Your task to perform on an android device: open app "Booking.com: Hotels and more" (install if not already installed) and enter user name: "misting@outlook.com" and password: "blandly" Image 0: 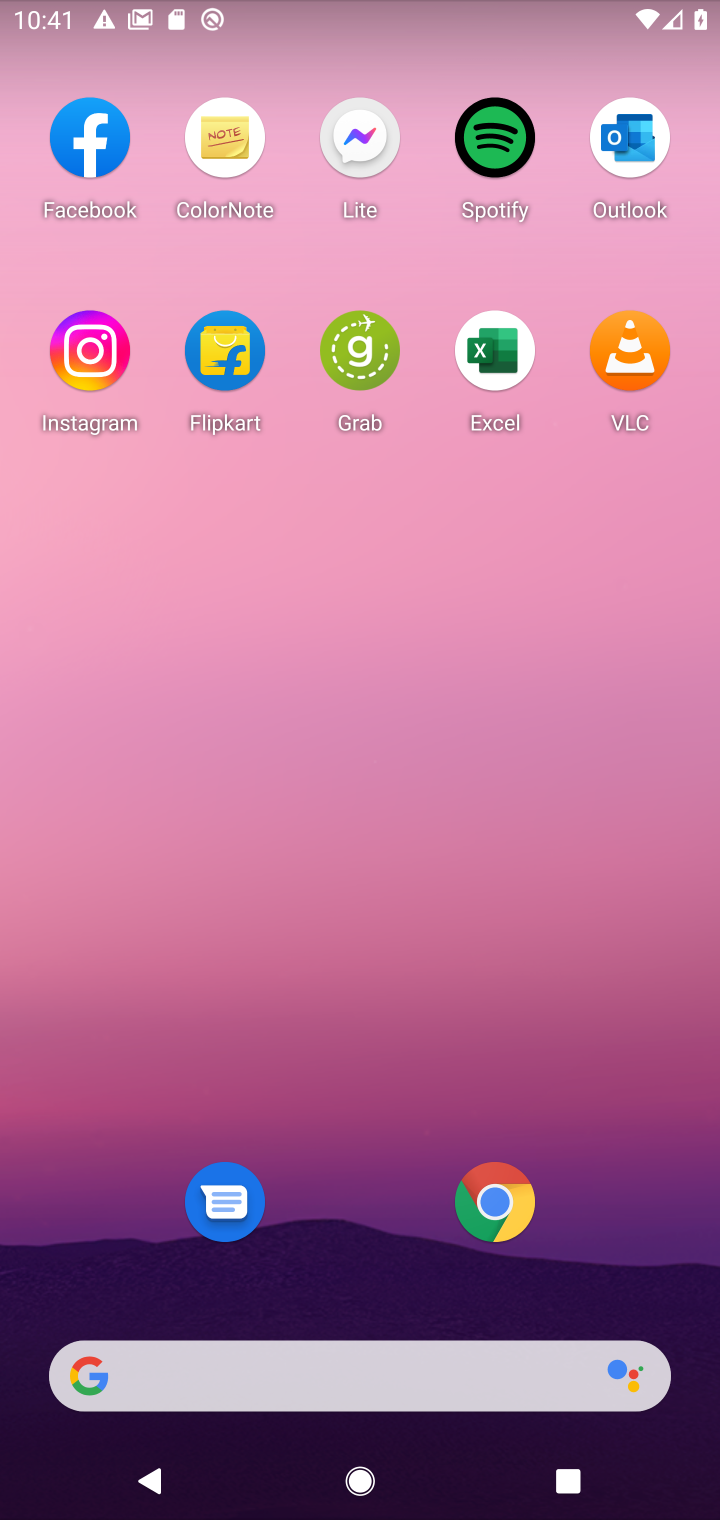
Step 0: drag from (382, 1380) to (312, 188)
Your task to perform on an android device: open app "Booking.com: Hotels and more" (install if not already installed) and enter user name: "misting@outlook.com" and password: "blandly" Image 1: 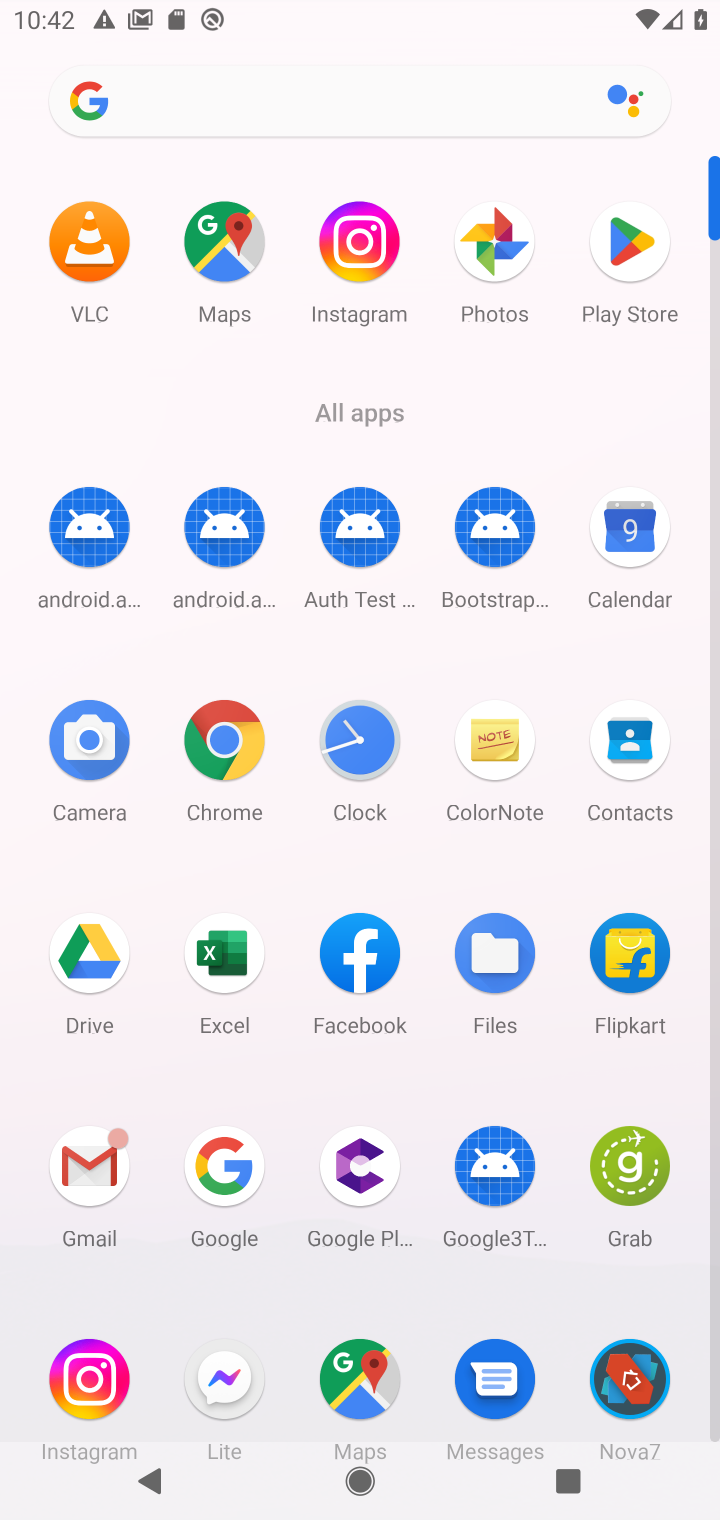
Step 1: click (621, 260)
Your task to perform on an android device: open app "Booking.com: Hotels and more" (install if not already installed) and enter user name: "misting@outlook.com" and password: "blandly" Image 2: 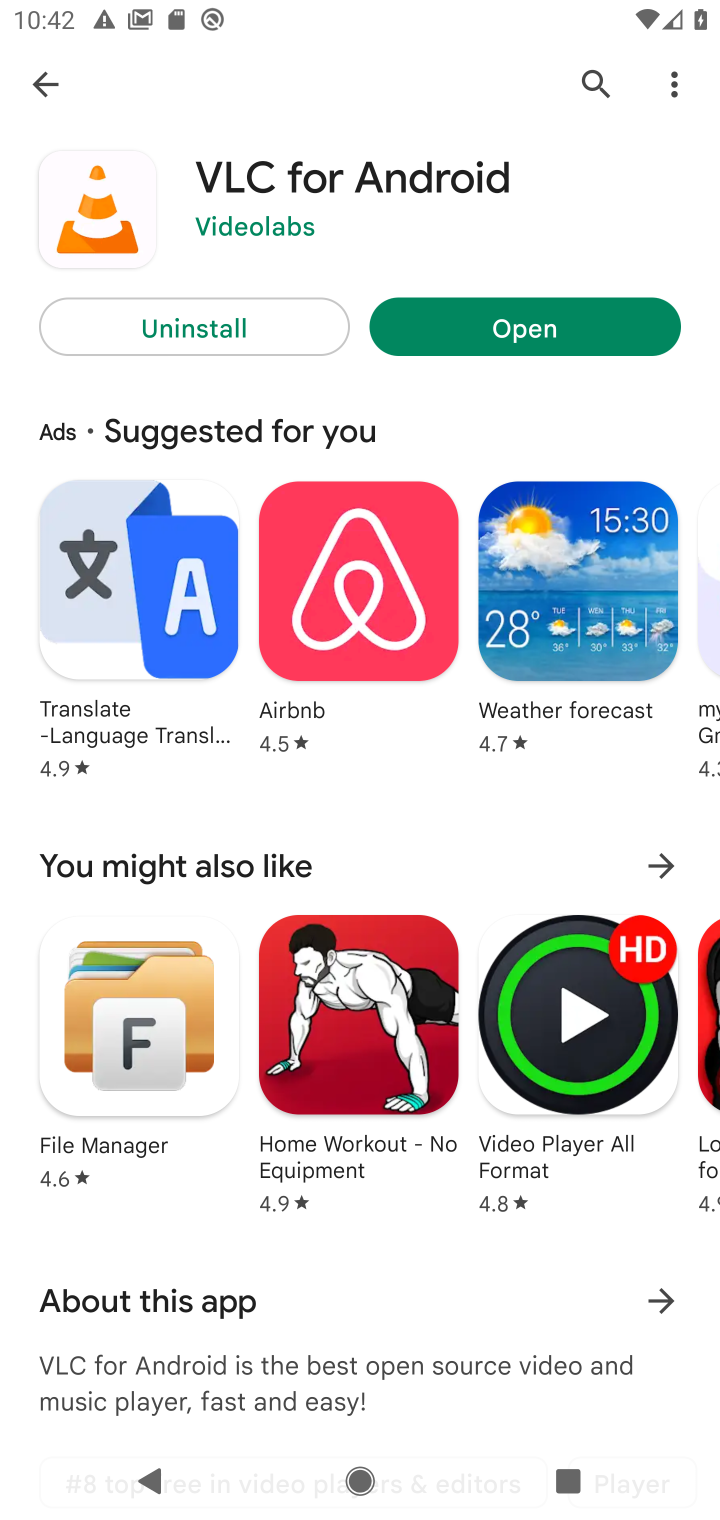
Step 2: click (598, 92)
Your task to perform on an android device: open app "Booking.com: Hotels and more" (install if not already installed) and enter user name: "misting@outlook.com" and password: "blandly" Image 3: 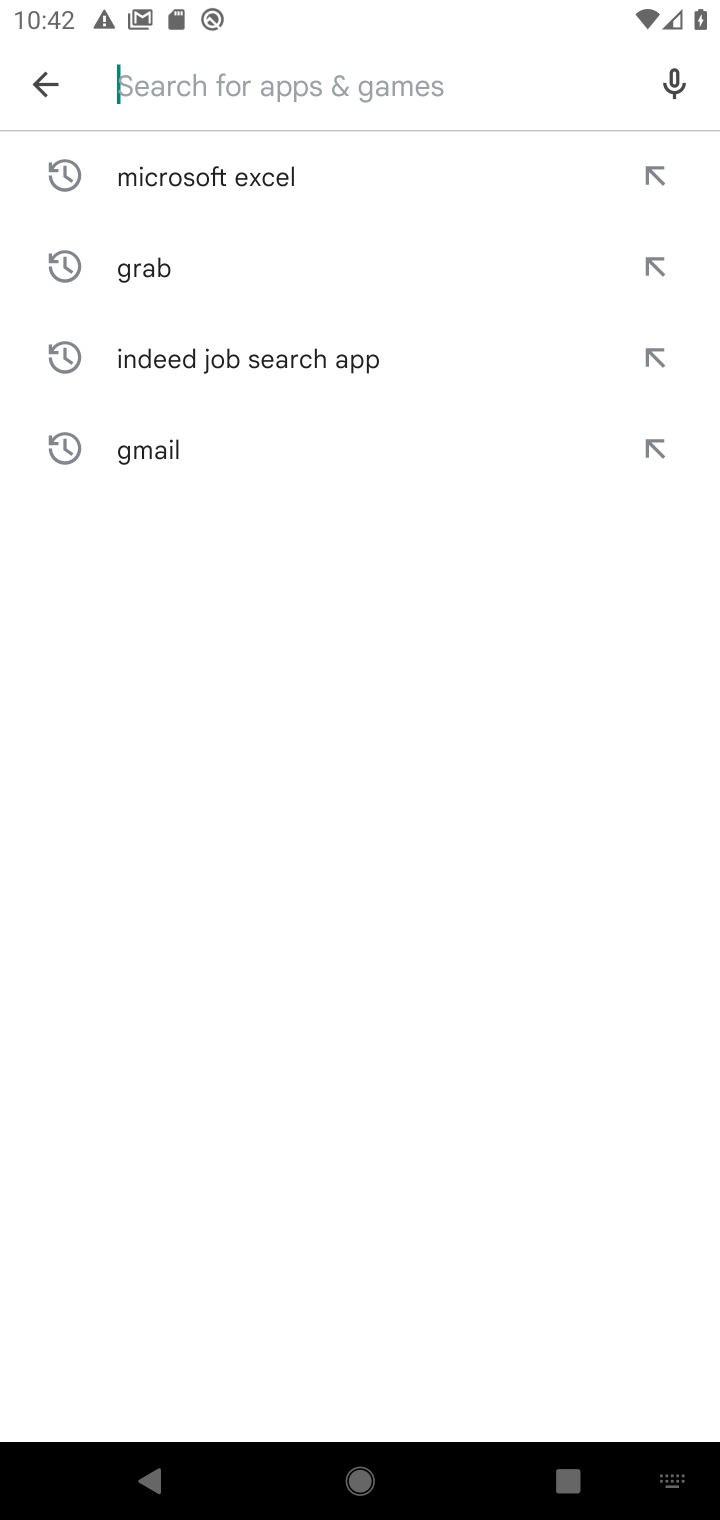
Step 3: type "booking.com"
Your task to perform on an android device: open app "Booking.com: Hotels and more" (install if not already installed) and enter user name: "misting@outlook.com" and password: "blandly" Image 4: 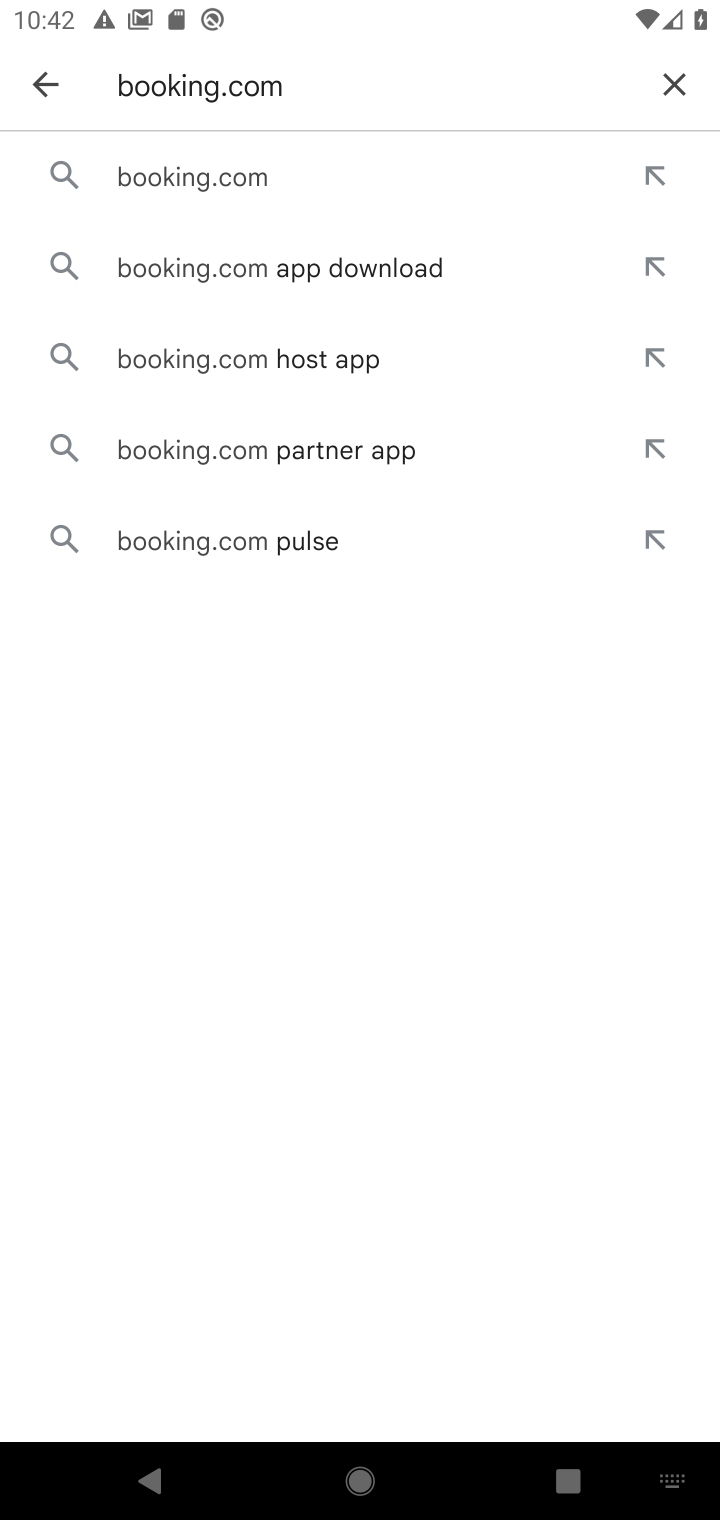
Step 4: click (230, 187)
Your task to perform on an android device: open app "Booking.com: Hotels and more" (install if not already installed) and enter user name: "misting@outlook.com" and password: "blandly" Image 5: 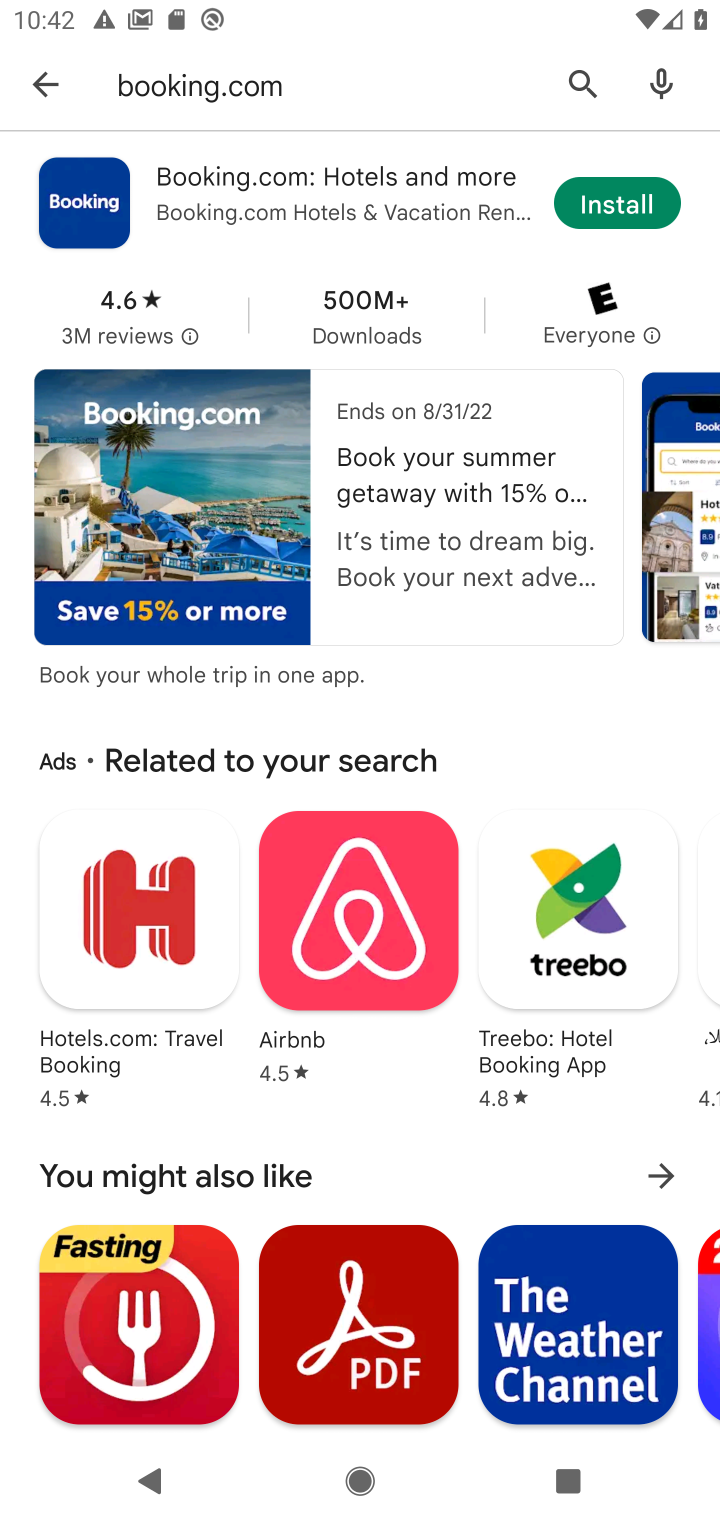
Step 5: click (633, 202)
Your task to perform on an android device: open app "Booking.com: Hotels and more" (install if not already installed) and enter user name: "misting@outlook.com" and password: "blandly" Image 6: 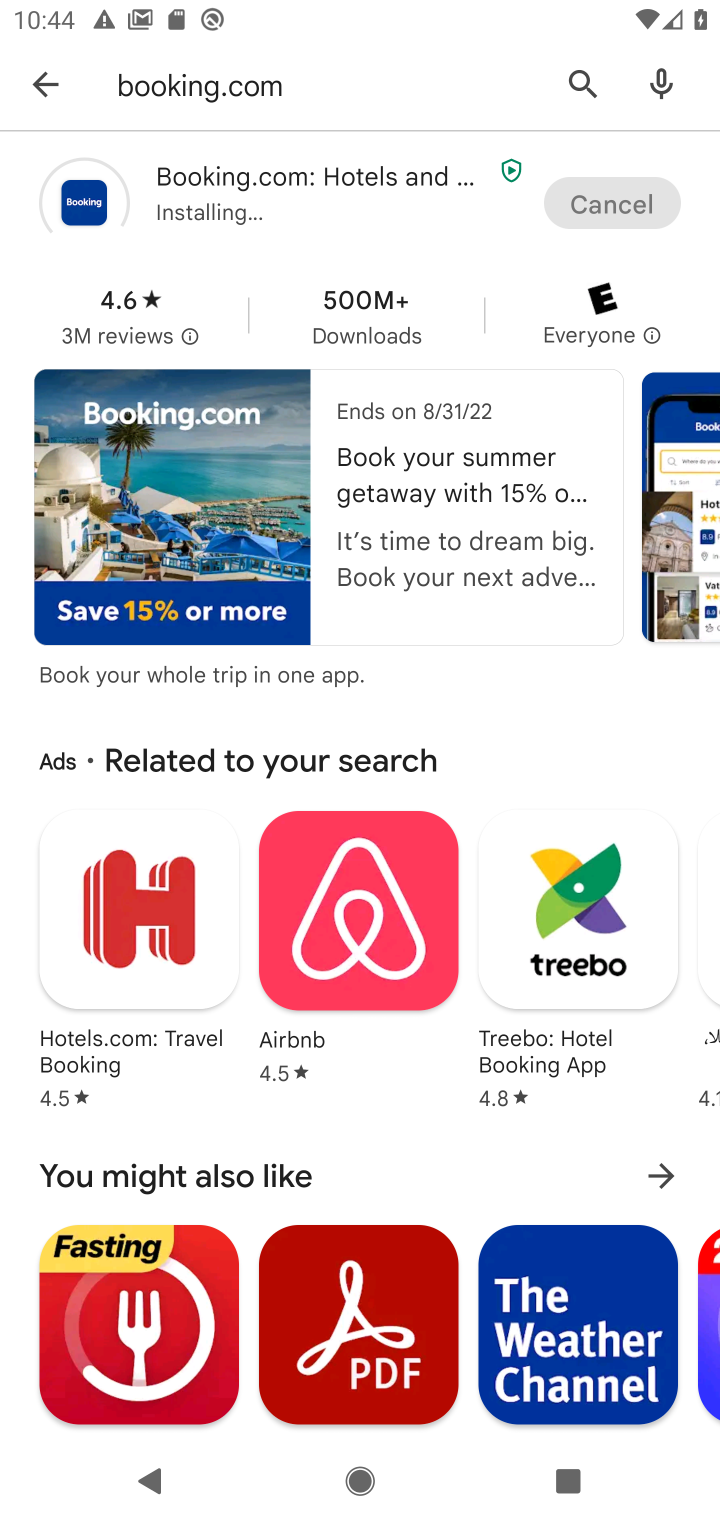
Step 6: drag from (362, 1080) to (359, 1311)
Your task to perform on an android device: open app "Booking.com: Hotels and more" (install if not already installed) and enter user name: "misting@outlook.com" and password: "blandly" Image 7: 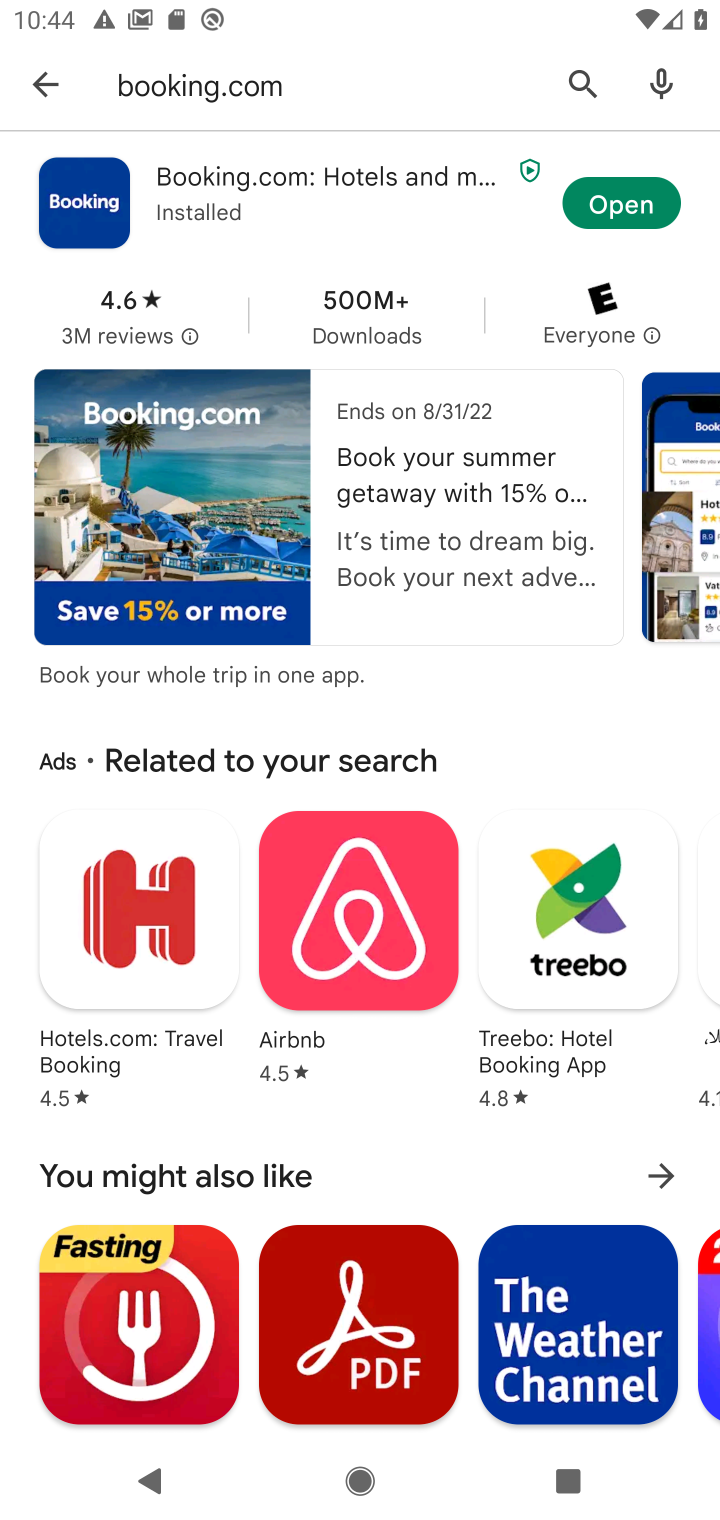
Step 7: click (608, 211)
Your task to perform on an android device: open app "Booking.com: Hotels and more" (install if not already installed) and enter user name: "misting@outlook.com" and password: "blandly" Image 8: 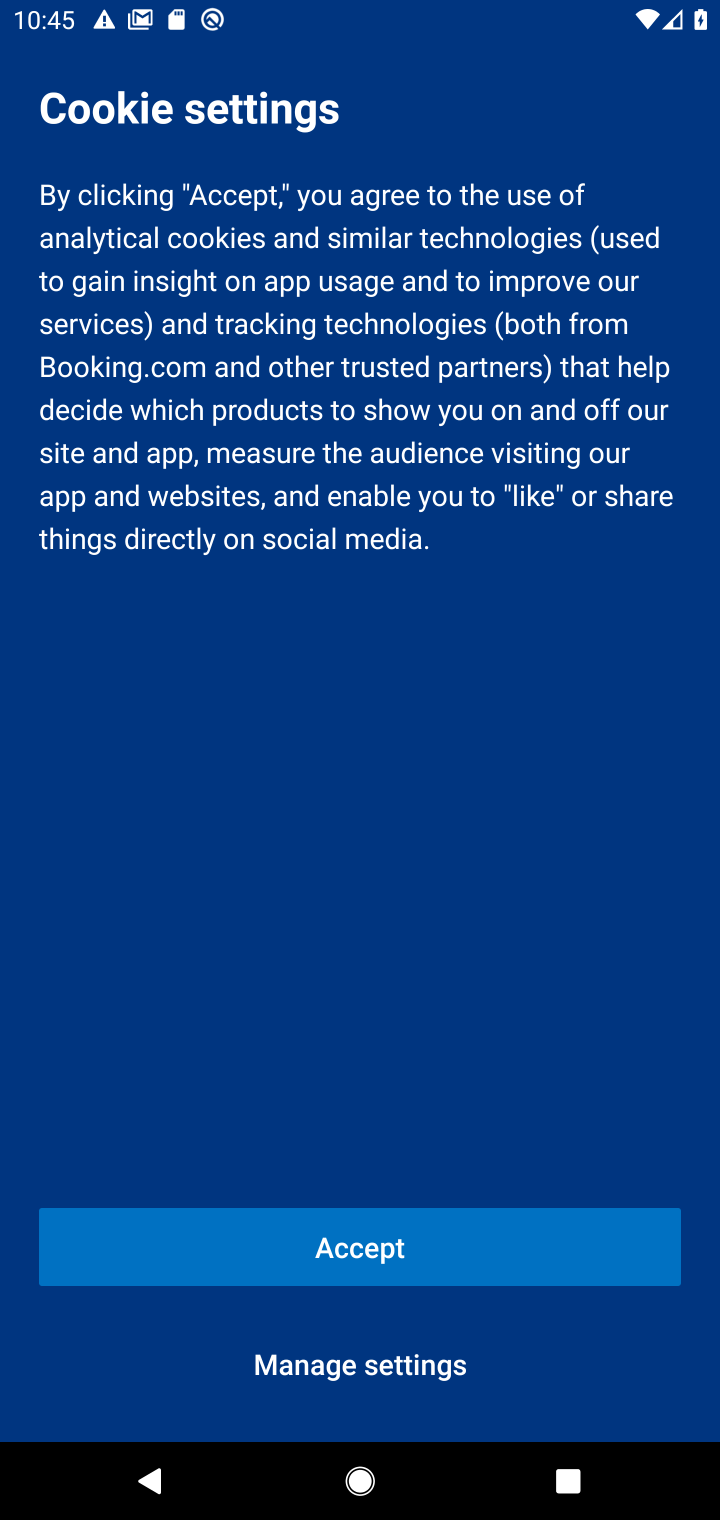
Step 8: click (434, 1247)
Your task to perform on an android device: open app "Booking.com: Hotels and more" (install if not already installed) and enter user name: "misting@outlook.com" and password: "blandly" Image 9: 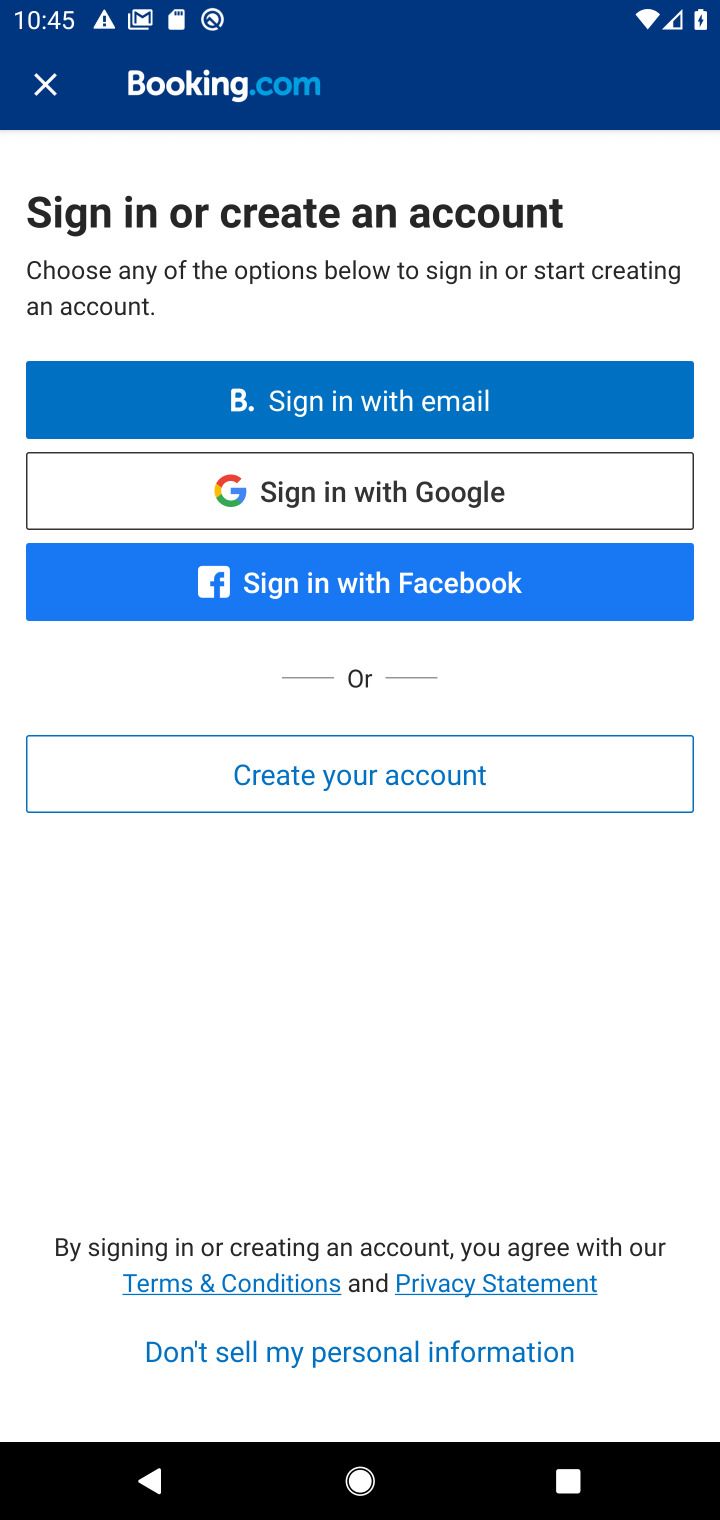
Step 9: click (325, 416)
Your task to perform on an android device: open app "Booking.com: Hotels and more" (install if not already installed) and enter user name: "misting@outlook.com" and password: "blandly" Image 10: 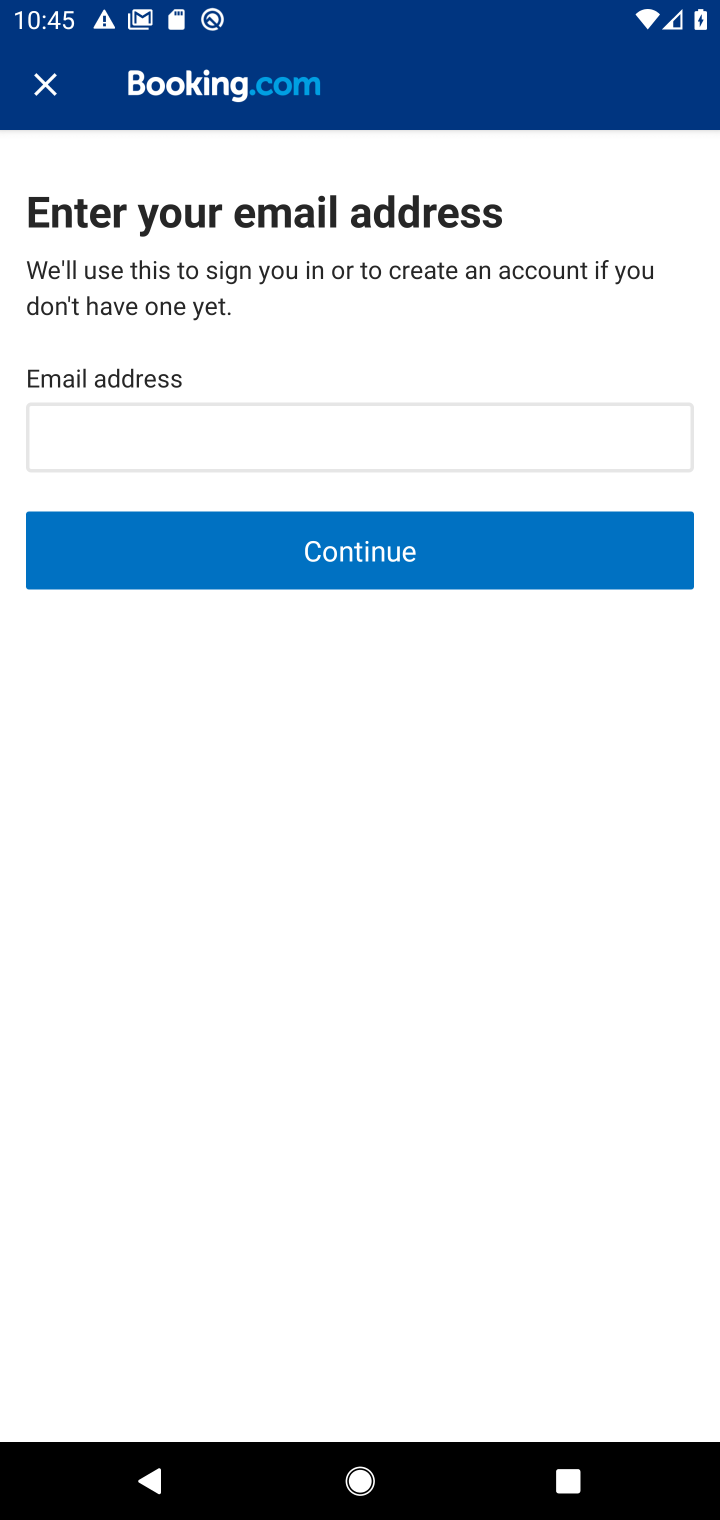
Step 10: click (147, 416)
Your task to perform on an android device: open app "Booking.com: Hotels and more" (install if not already installed) and enter user name: "misting@outlook.com" and password: "blandly" Image 11: 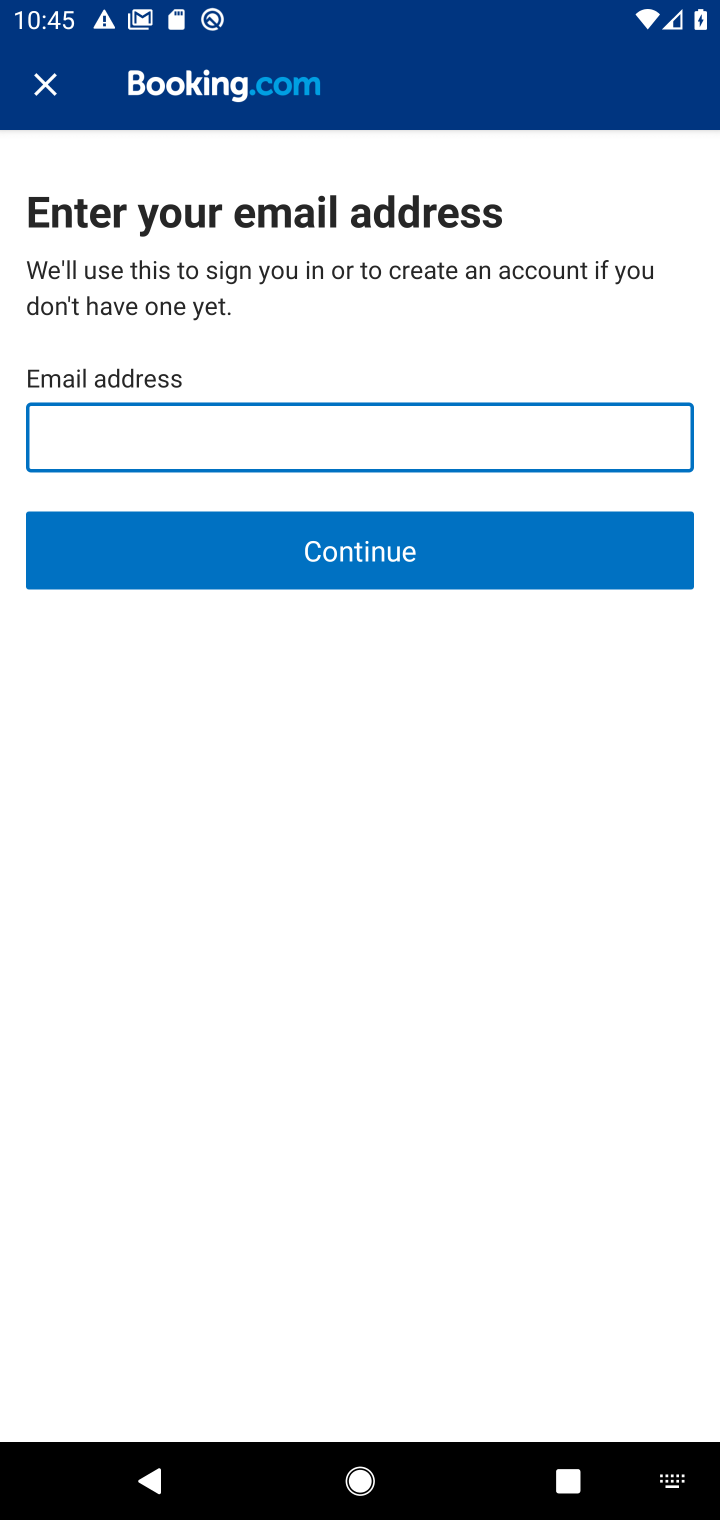
Step 11: type "misting@outlook.com"
Your task to perform on an android device: open app "Booking.com: Hotels and more" (install if not already installed) and enter user name: "misting@outlook.com" and password: "blandly" Image 12: 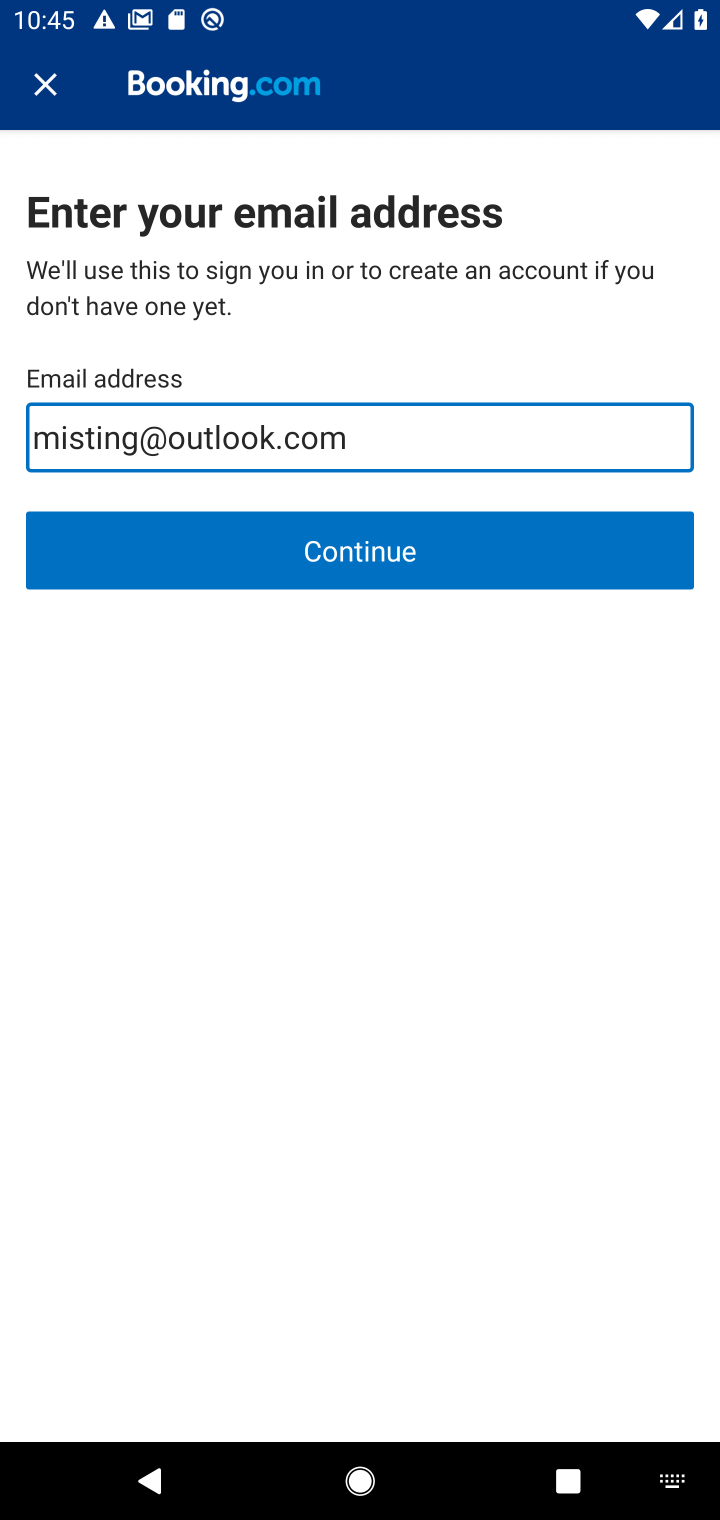
Step 12: click (420, 534)
Your task to perform on an android device: open app "Booking.com: Hotels and more" (install if not already installed) and enter user name: "misting@outlook.com" and password: "blandly" Image 13: 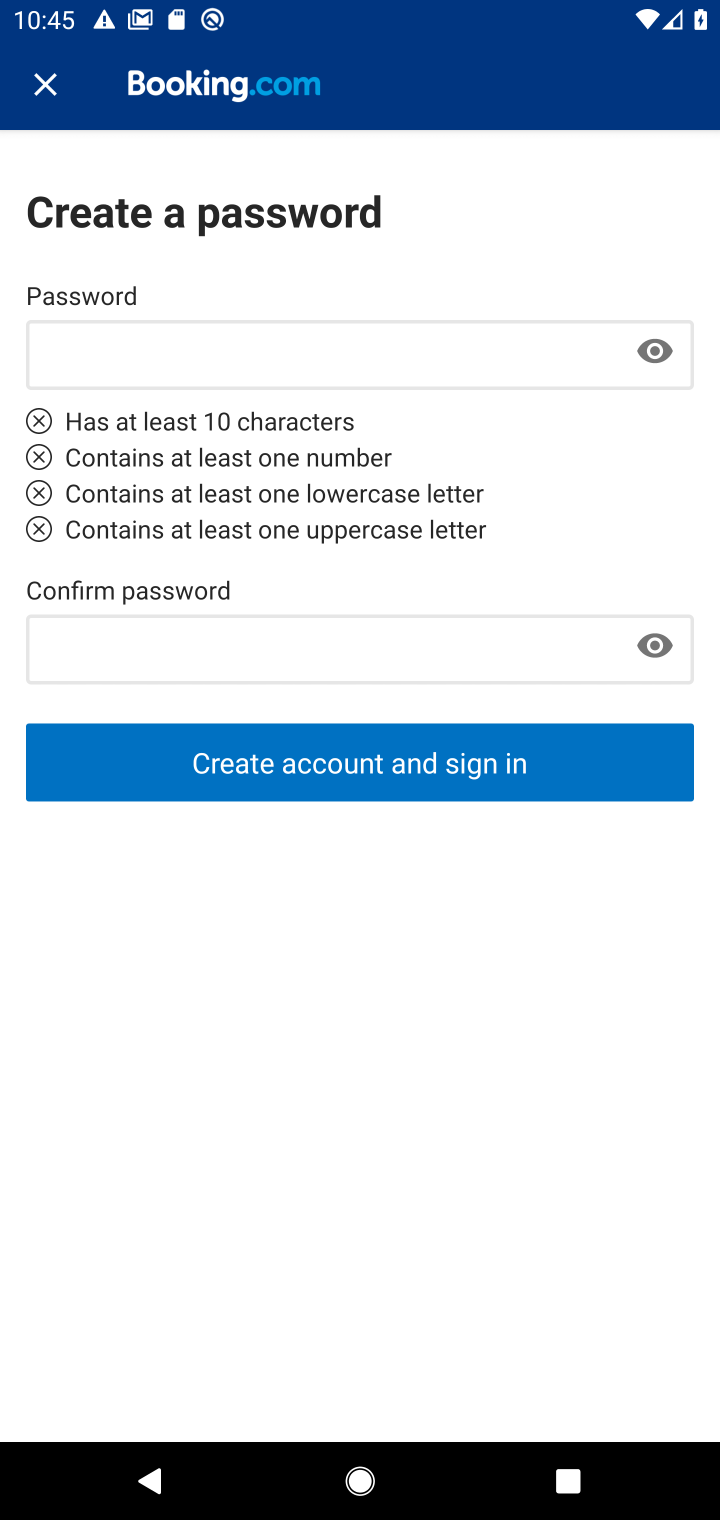
Step 13: click (236, 344)
Your task to perform on an android device: open app "Booking.com: Hotels and more" (install if not already installed) and enter user name: "misting@outlook.com" and password: "blandly" Image 14: 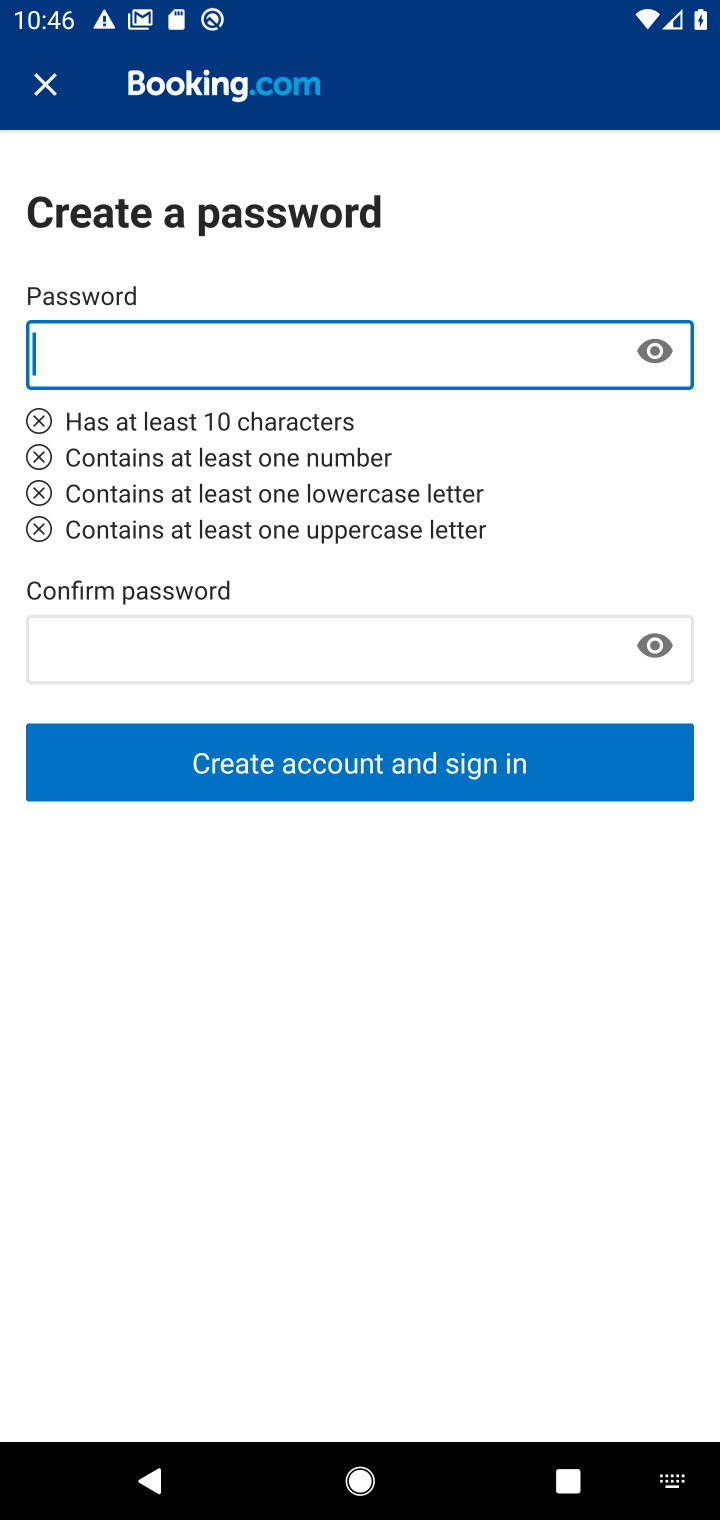
Step 14: task complete